Your task to perform on an android device: check data usage Image 0: 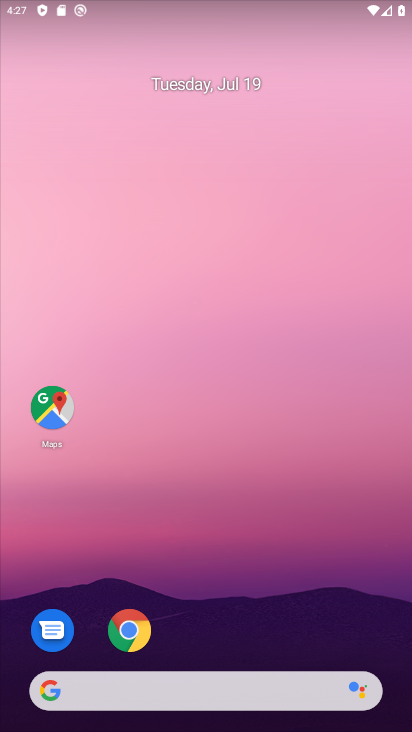
Step 0: drag from (244, 618) to (198, 120)
Your task to perform on an android device: check data usage Image 1: 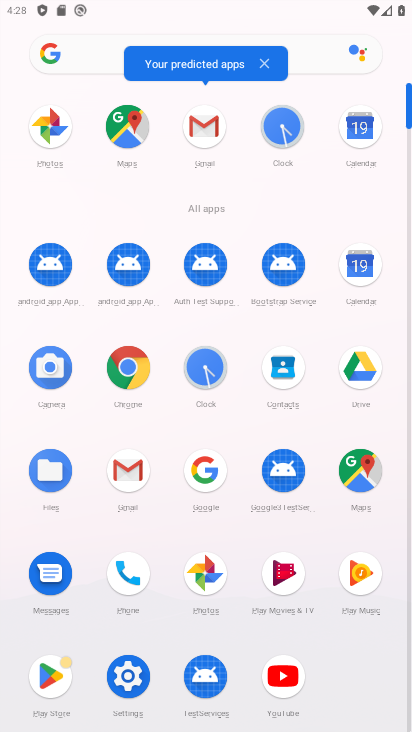
Step 1: click (175, 664)
Your task to perform on an android device: check data usage Image 2: 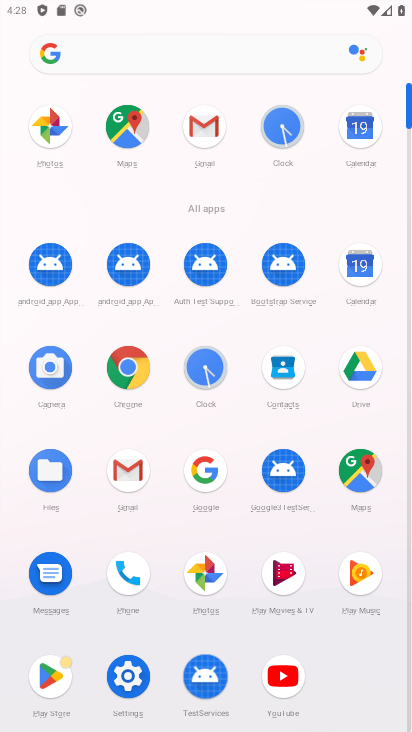
Step 2: click (136, 667)
Your task to perform on an android device: check data usage Image 3: 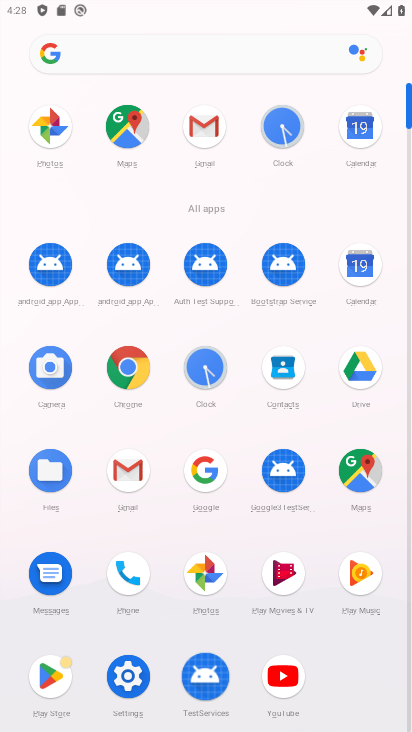
Step 3: click (124, 672)
Your task to perform on an android device: check data usage Image 4: 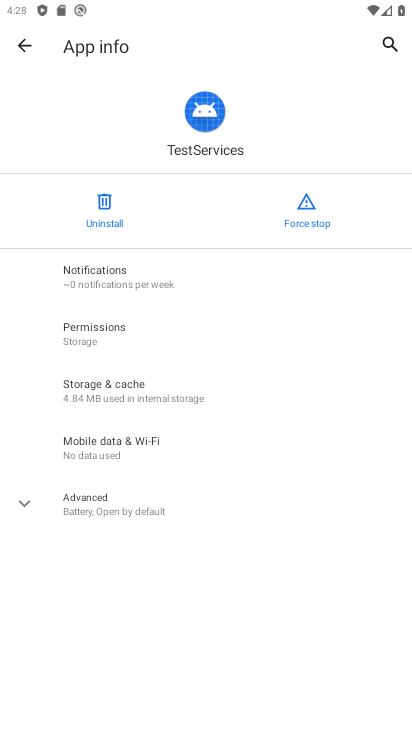
Step 4: click (21, 45)
Your task to perform on an android device: check data usage Image 5: 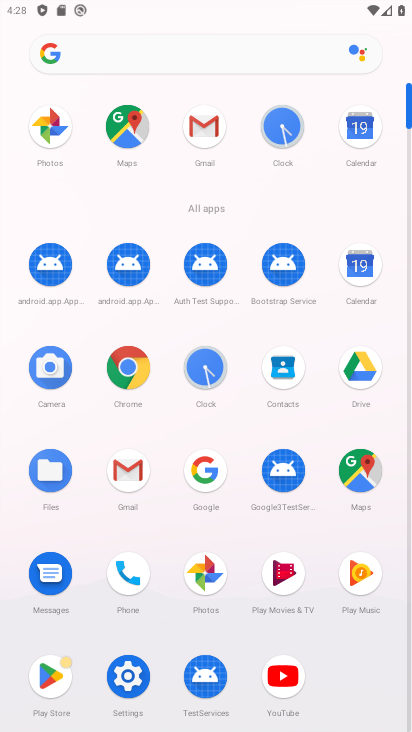
Step 5: click (109, 677)
Your task to perform on an android device: check data usage Image 6: 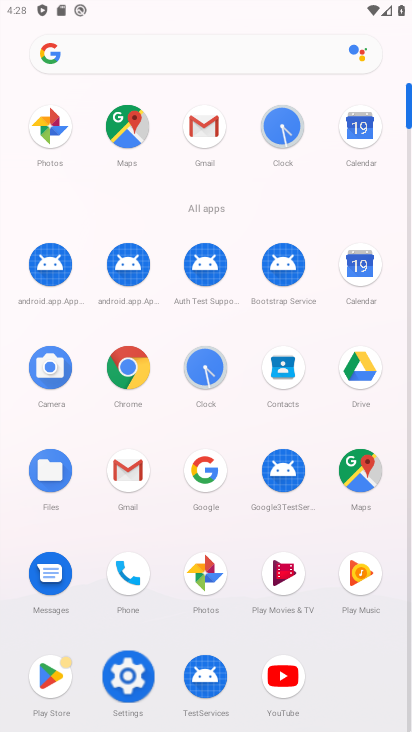
Step 6: click (118, 676)
Your task to perform on an android device: check data usage Image 7: 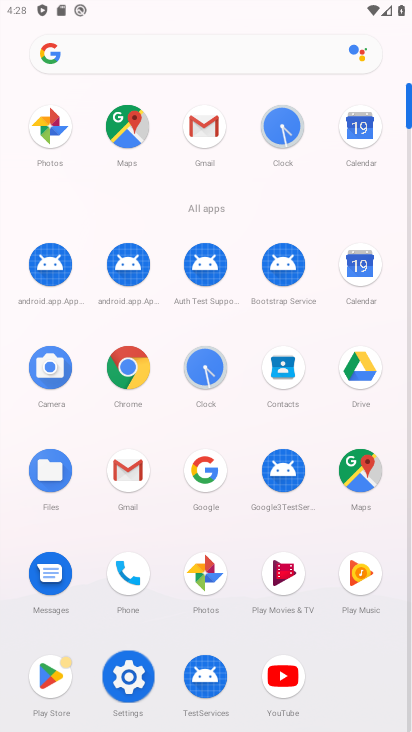
Step 7: click (118, 676)
Your task to perform on an android device: check data usage Image 8: 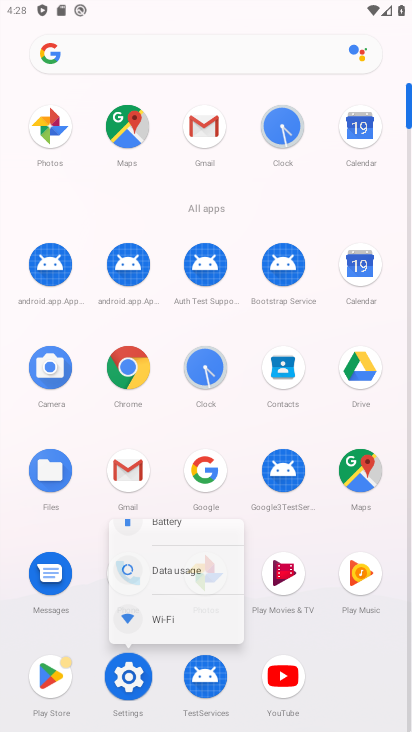
Step 8: click (121, 675)
Your task to perform on an android device: check data usage Image 9: 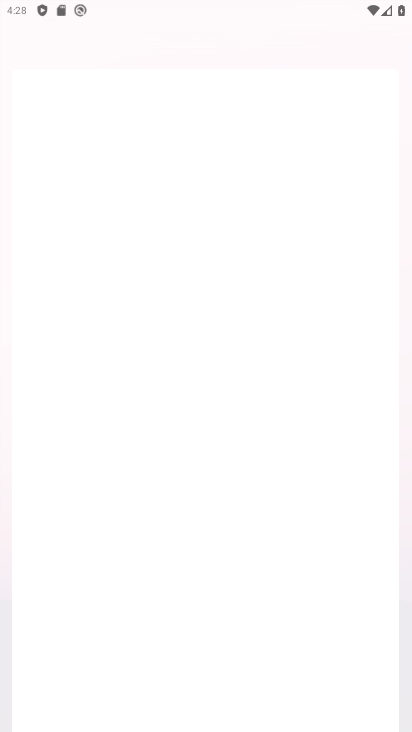
Step 9: click (120, 674)
Your task to perform on an android device: check data usage Image 10: 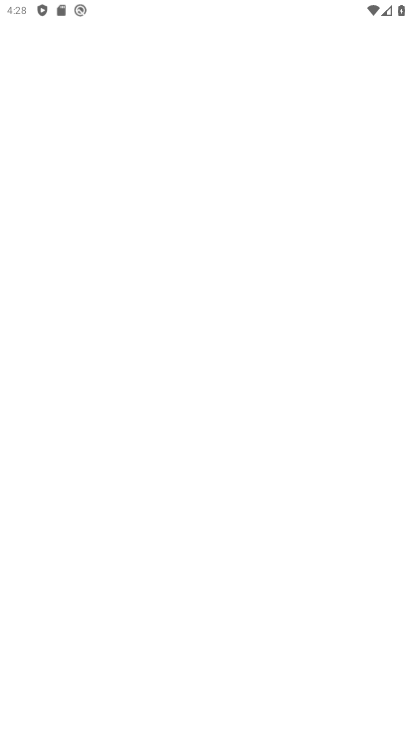
Step 10: click (151, 677)
Your task to perform on an android device: check data usage Image 11: 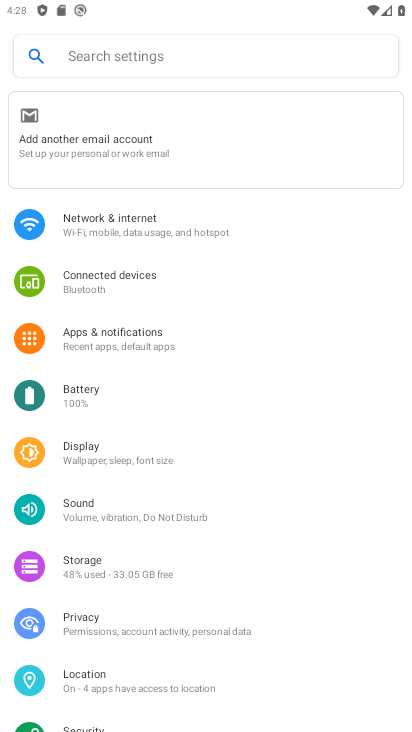
Step 11: click (124, 229)
Your task to perform on an android device: check data usage Image 12: 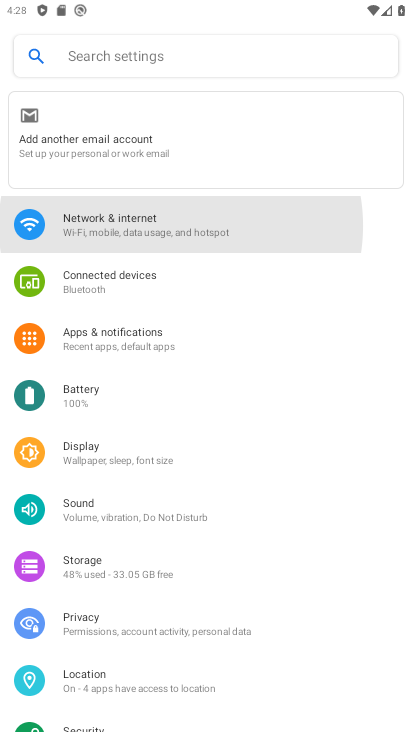
Step 12: click (124, 229)
Your task to perform on an android device: check data usage Image 13: 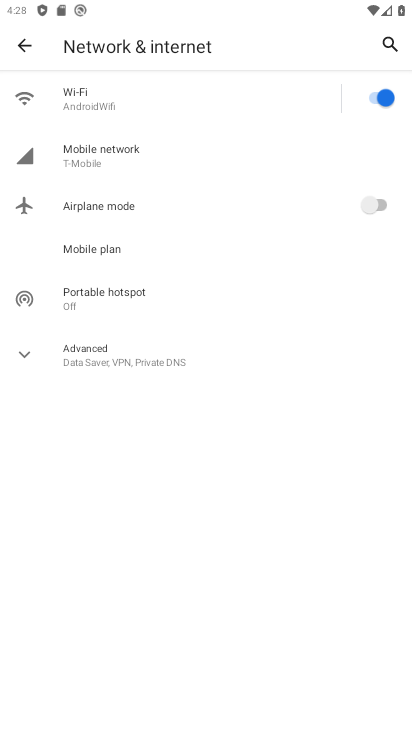
Step 13: click (90, 146)
Your task to perform on an android device: check data usage Image 14: 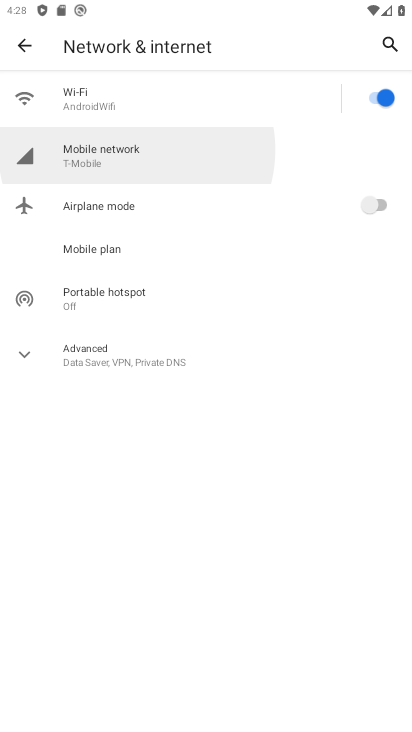
Step 14: click (90, 146)
Your task to perform on an android device: check data usage Image 15: 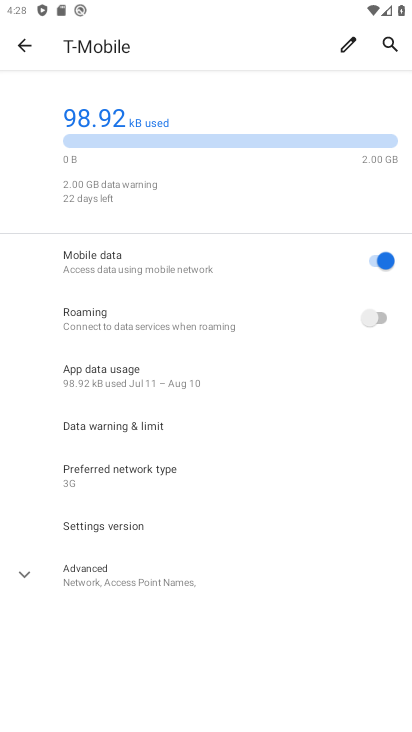
Step 15: press back button
Your task to perform on an android device: check data usage Image 16: 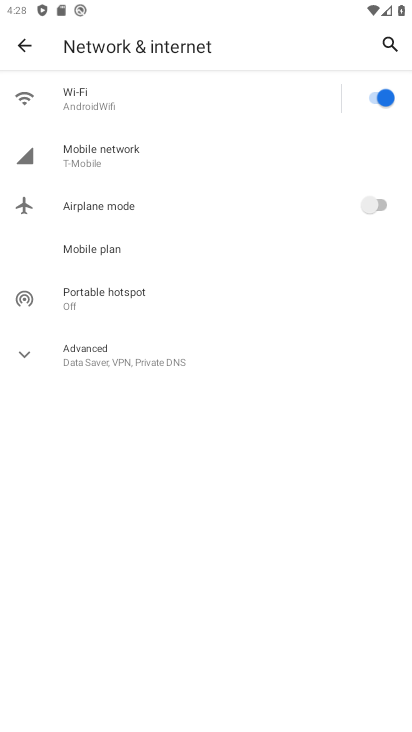
Step 16: press home button
Your task to perform on an android device: check data usage Image 17: 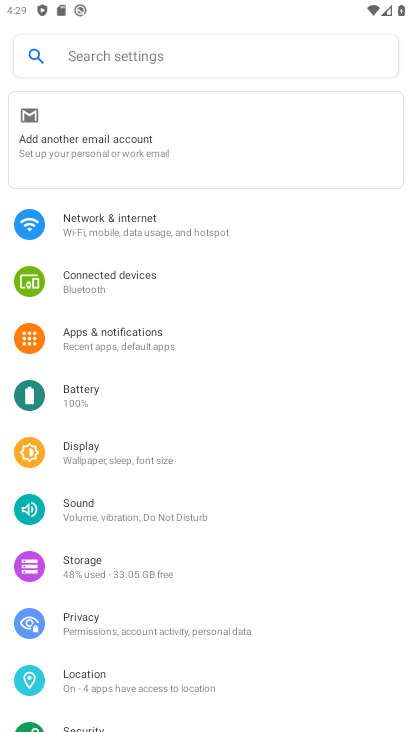
Step 17: click (90, 570)
Your task to perform on an android device: check data usage Image 18: 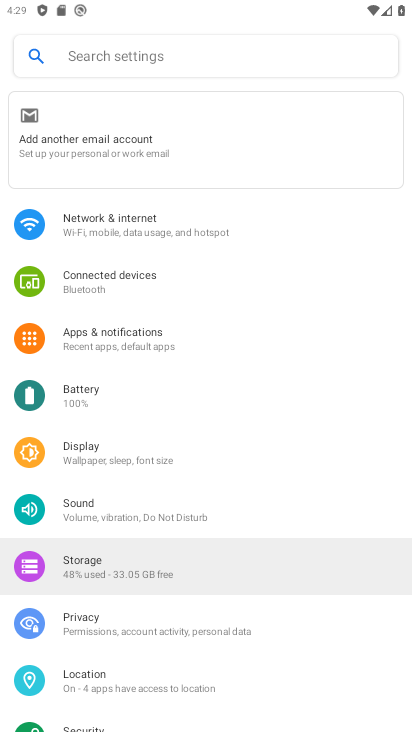
Step 18: click (92, 566)
Your task to perform on an android device: check data usage Image 19: 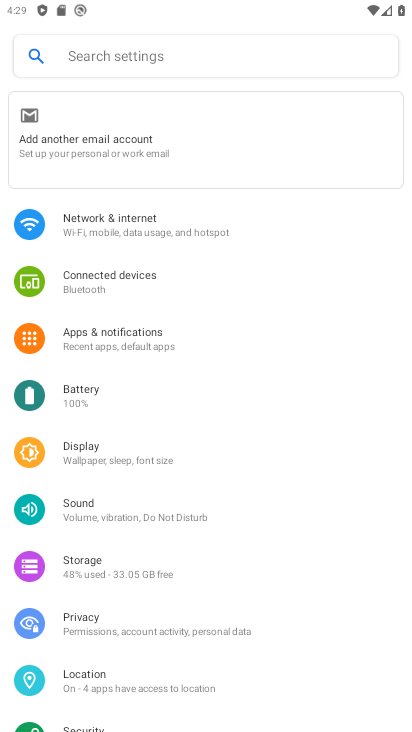
Step 19: click (94, 565)
Your task to perform on an android device: check data usage Image 20: 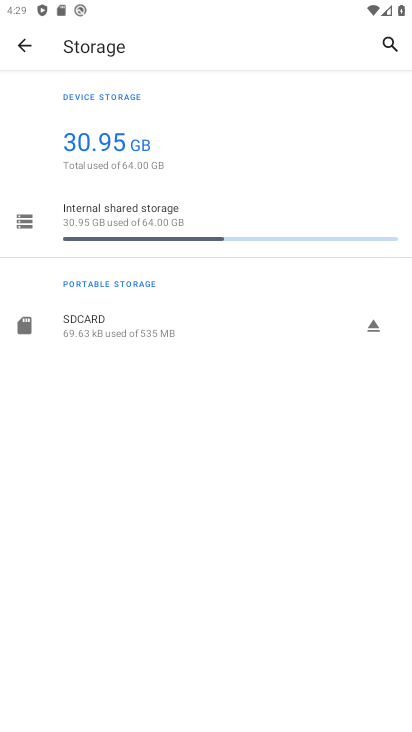
Step 20: task complete